Your task to perform on an android device: turn on the 24-hour format for clock Image 0: 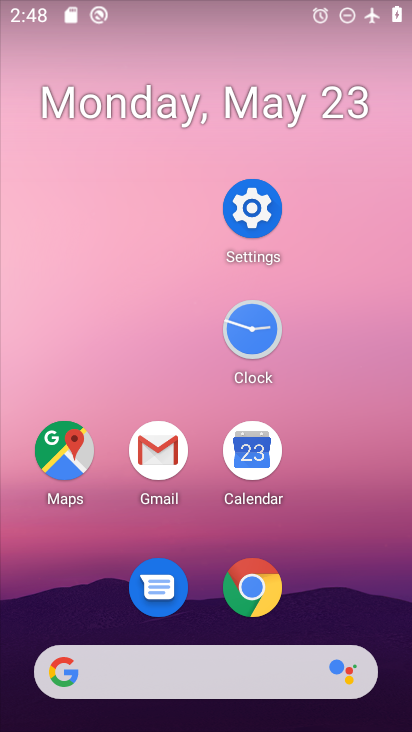
Step 0: click (259, 329)
Your task to perform on an android device: turn on the 24-hour format for clock Image 1: 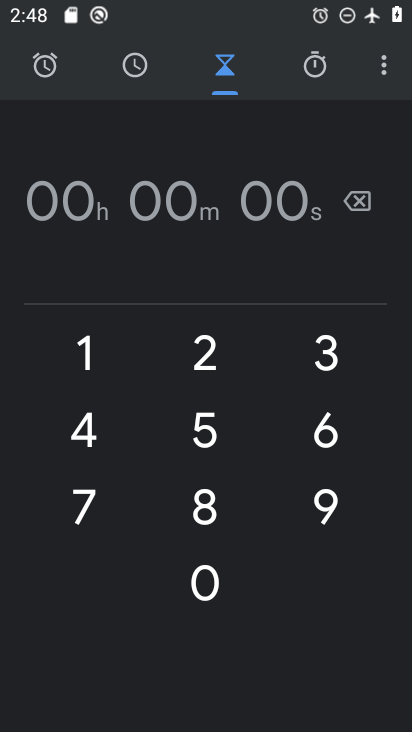
Step 1: click (383, 66)
Your task to perform on an android device: turn on the 24-hour format for clock Image 2: 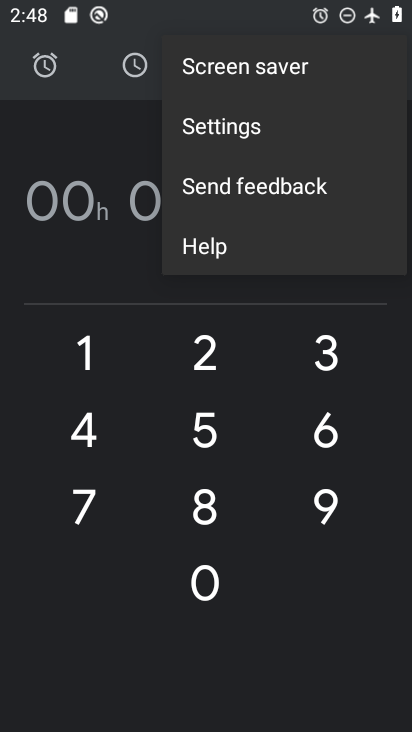
Step 2: click (252, 133)
Your task to perform on an android device: turn on the 24-hour format for clock Image 3: 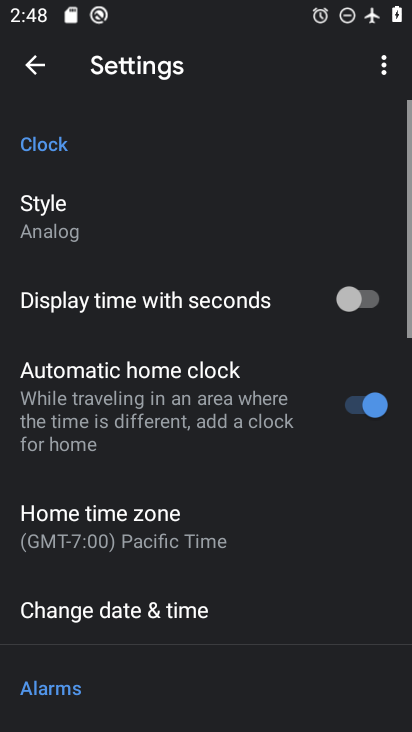
Step 3: drag from (231, 601) to (254, 260)
Your task to perform on an android device: turn on the 24-hour format for clock Image 4: 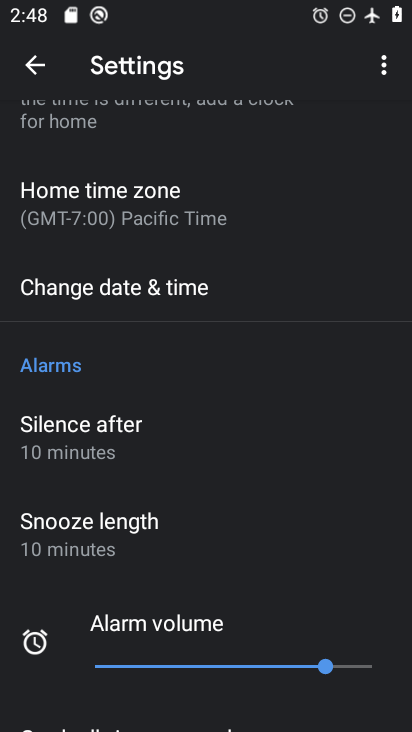
Step 4: click (217, 268)
Your task to perform on an android device: turn on the 24-hour format for clock Image 5: 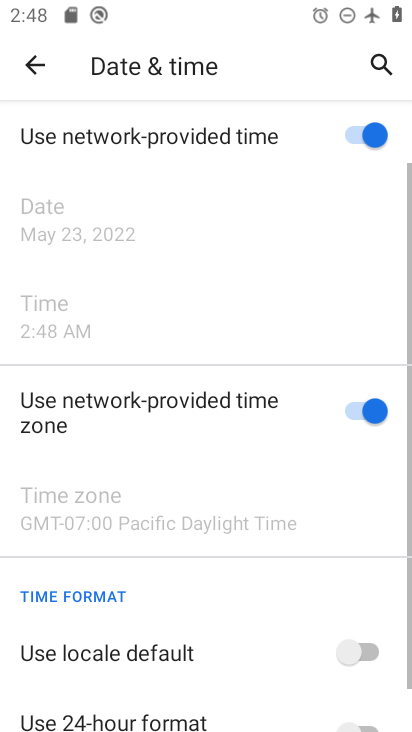
Step 5: drag from (275, 691) to (286, 437)
Your task to perform on an android device: turn on the 24-hour format for clock Image 6: 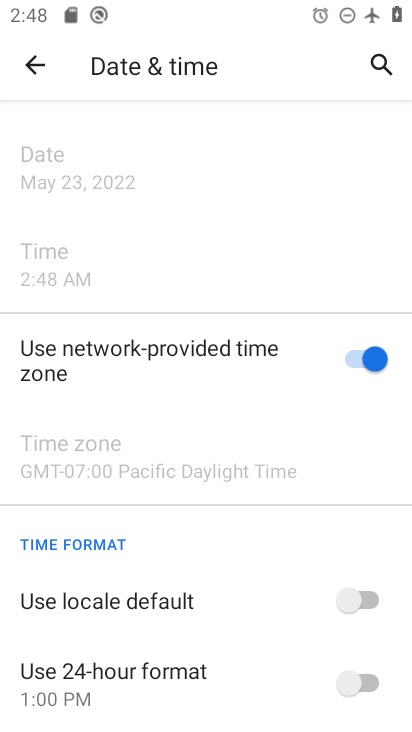
Step 6: click (362, 676)
Your task to perform on an android device: turn on the 24-hour format for clock Image 7: 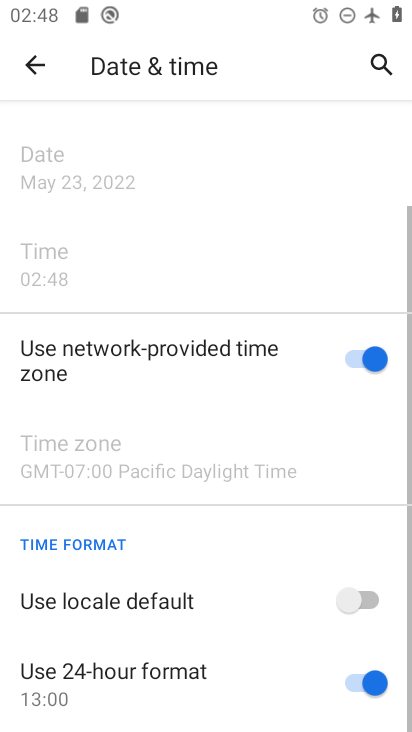
Step 7: task complete